Your task to perform on an android device: turn off location history Image 0: 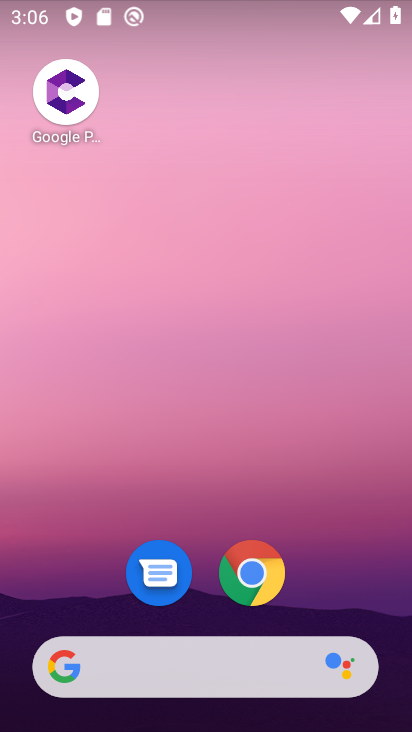
Step 0: drag from (391, 685) to (331, 148)
Your task to perform on an android device: turn off location history Image 1: 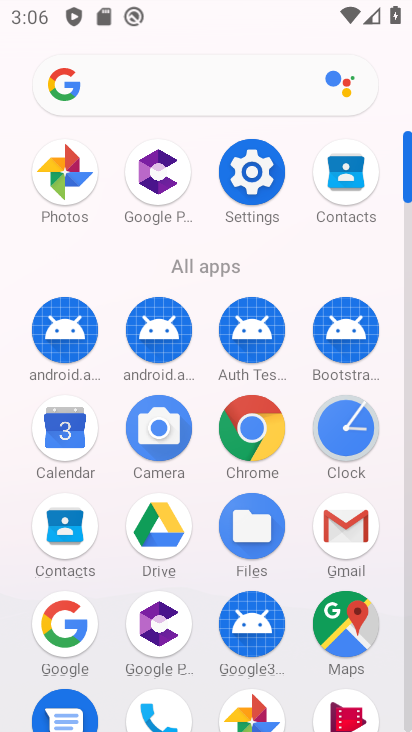
Step 1: click (256, 168)
Your task to perform on an android device: turn off location history Image 2: 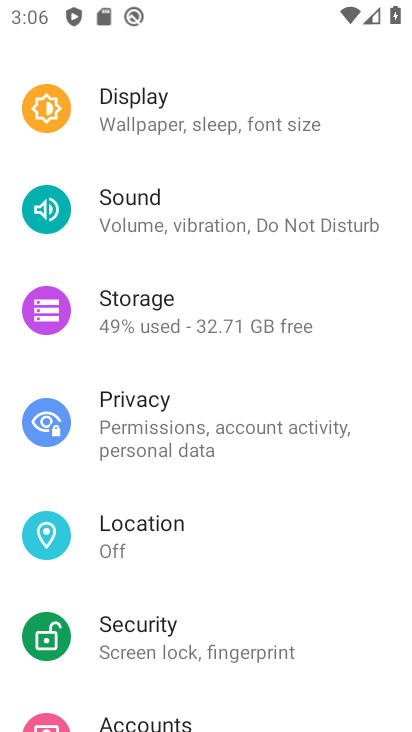
Step 2: click (131, 533)
Your task to perform on an android device: turn off location history Image 3: 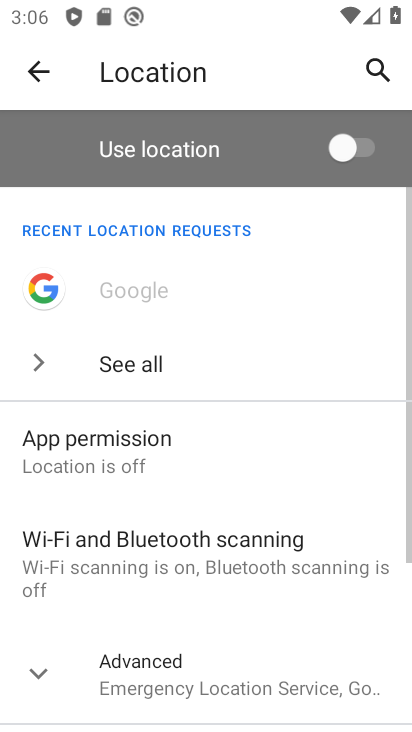
Step 3: task complete